Your task to perform on an android device: open chrome and create a bookmark for the current page Image 0: 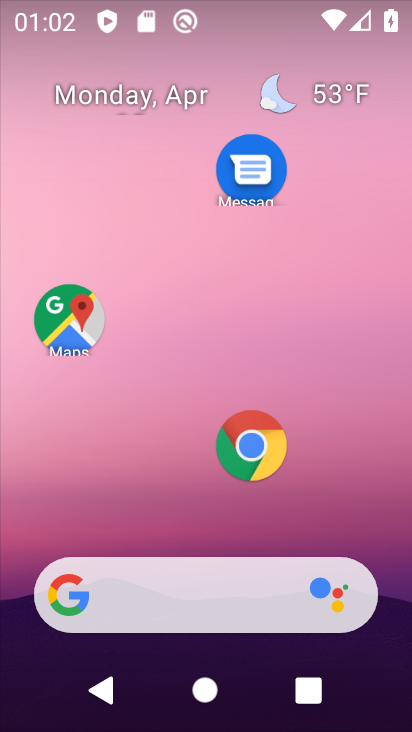
Step 0: click (191, 455)
Your task to perform on an android device: open chrome and create a bookmark for the current page Image 1: 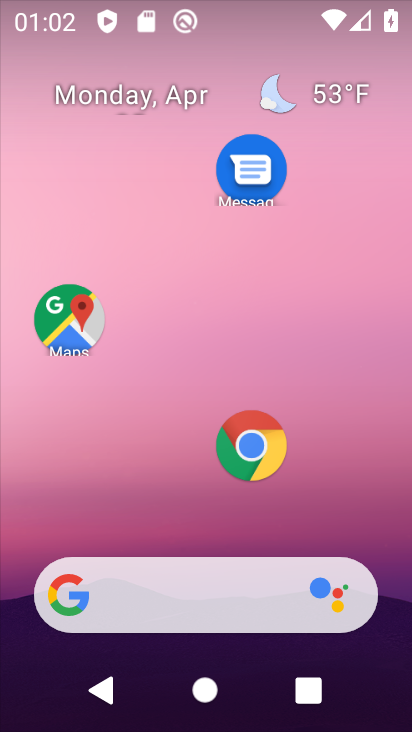
Step 1: click (264, 445)
Your task to perform on an android device: open chrome and create a bookmark for the current page Image 2: 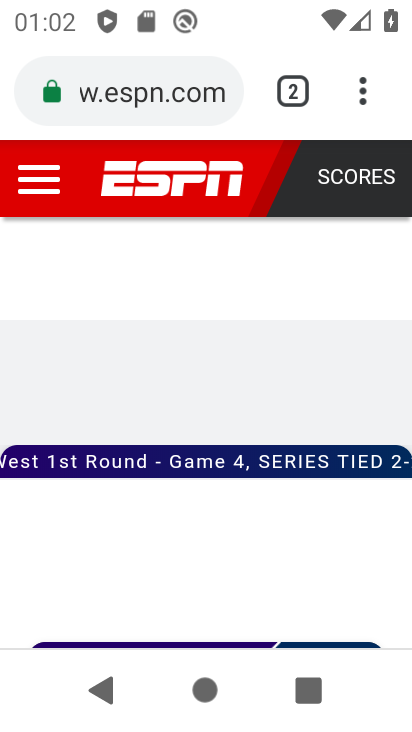
Step 2: click (162, 96)
Your task to perform on an android device: open chrome and create a bookmark for the current page Image 3: 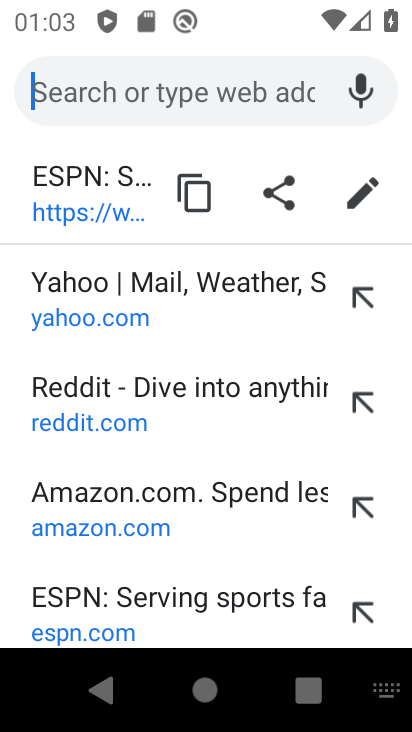
Step 3: type "feminist"
Your task to perform on an android device: open chrome and create a bookmark for the current page Image 4: 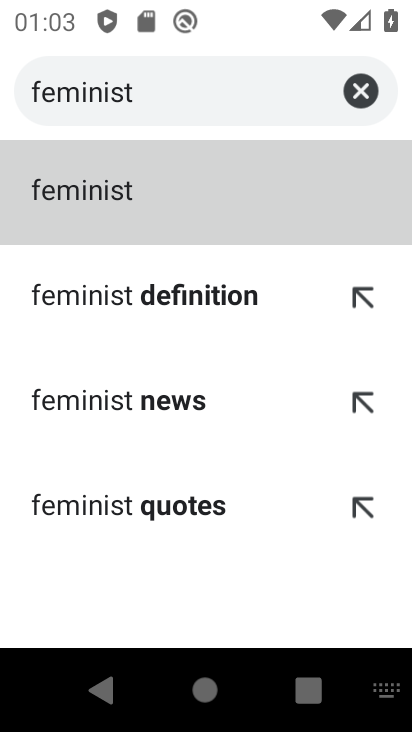
Step 4: click (106, 200)
Your task to perform on an android device: open chrome and create a bookmark for the current page Image 5: 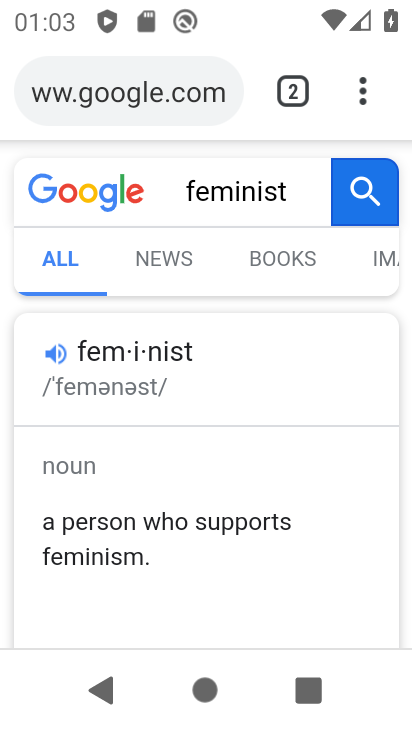
Step 5: click (360, 88)
Your task to perform on an android device: open chrome and create a bookmark for the current page Image 6: 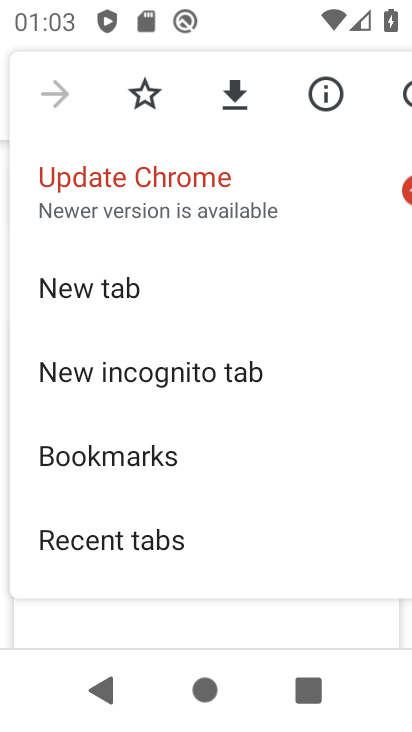
Step 6: click (142, 98)
Your task to perform on an android device: open chrome and create a bookmark for the current page Image 7: 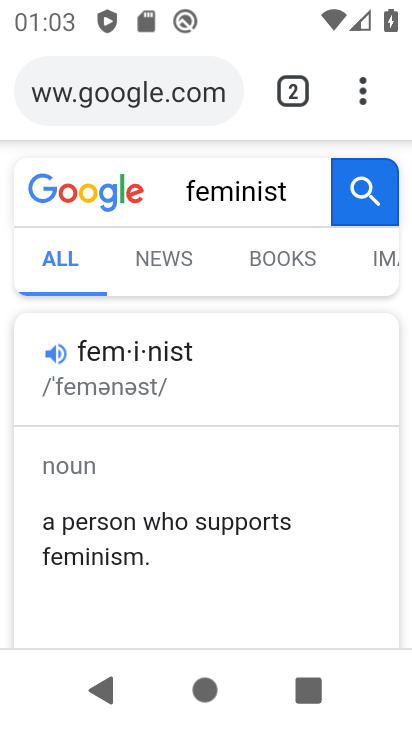
Step 7: task complete